Your task to perform on an android device: What is the news today? Image 0: 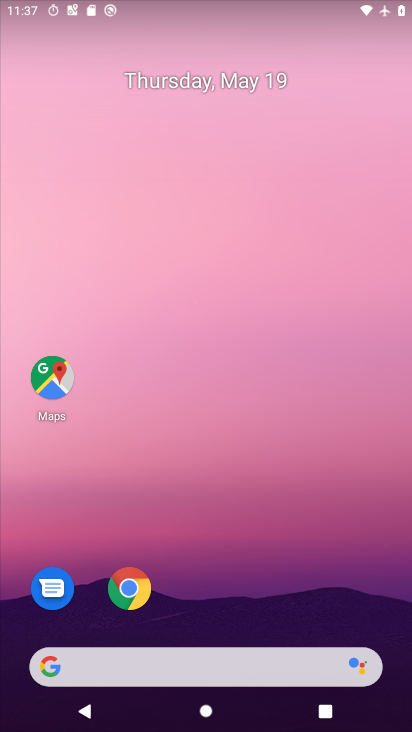
Step 0: press home button
Your task to perform on an android device: What is the news today? Image 1: 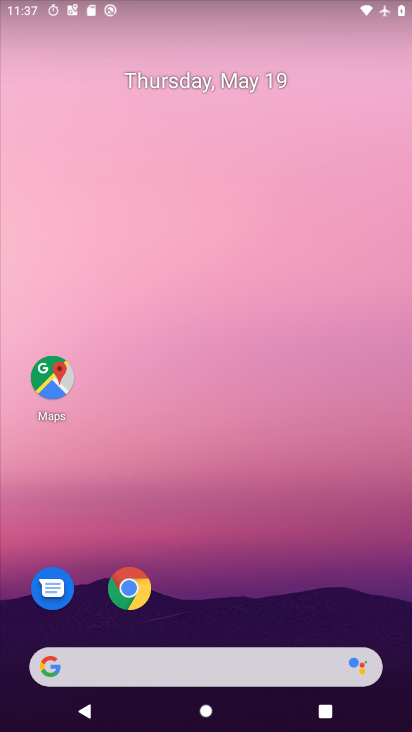
Step 1: click (58, 669)
Your task to perform on an android device: What is the news today? Image 2: 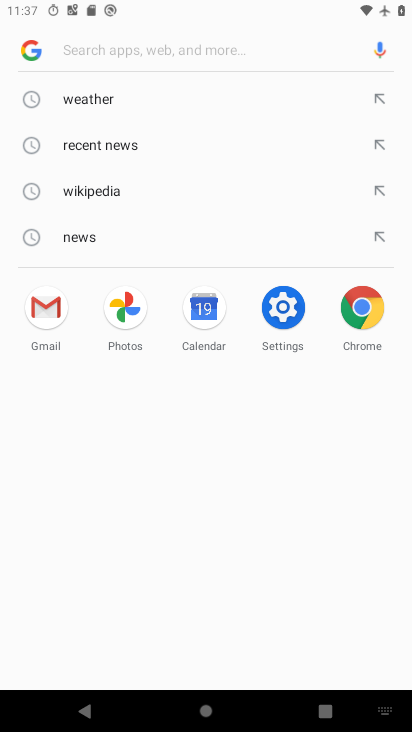
Step 2: click (69, 240)
Your task to perform on an android device: What is the news today? Image 3: 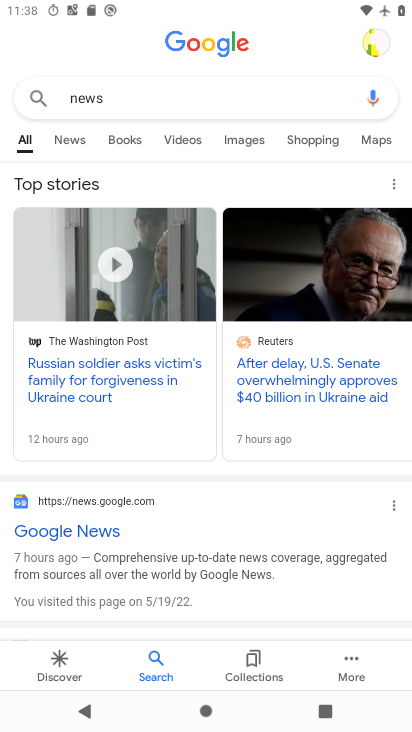
Step 3: click (79, 140)
Your task to perform on an android device: What is the news today? Image 4: 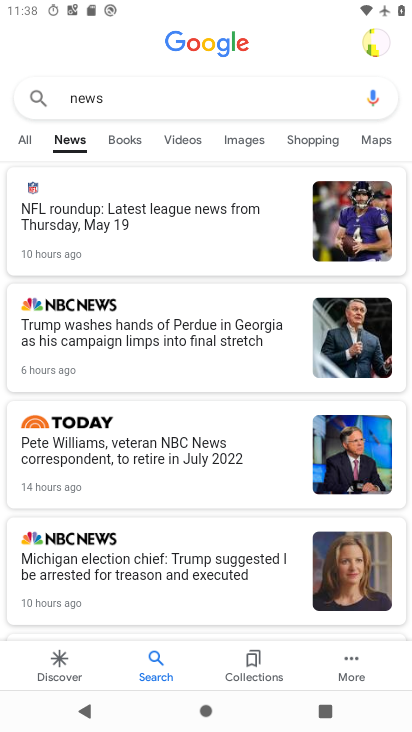
Step 4: task complete